Your task to perform on an android device: Open Yahoo.com Image 0: 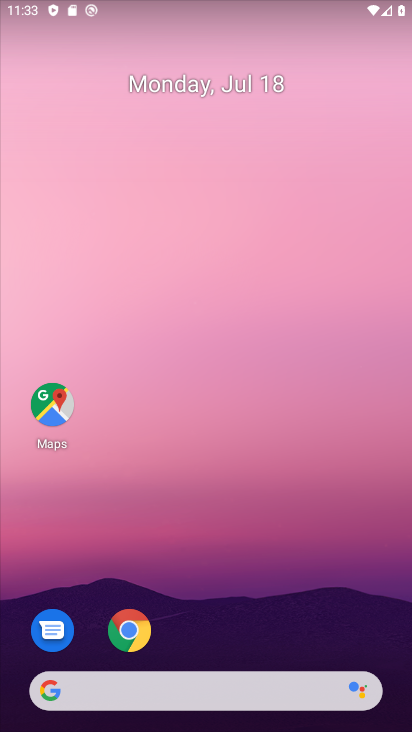
Step 0: click (131, 643)
Your task to perform on an android device: Open Yahoo.com Image 1: 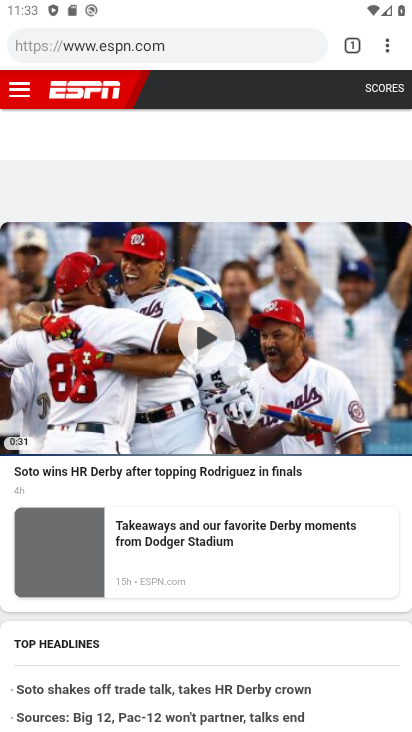
Step 1: click (206, 47)
Your task to perform on an android device: Open Yahoo.com Image 2: 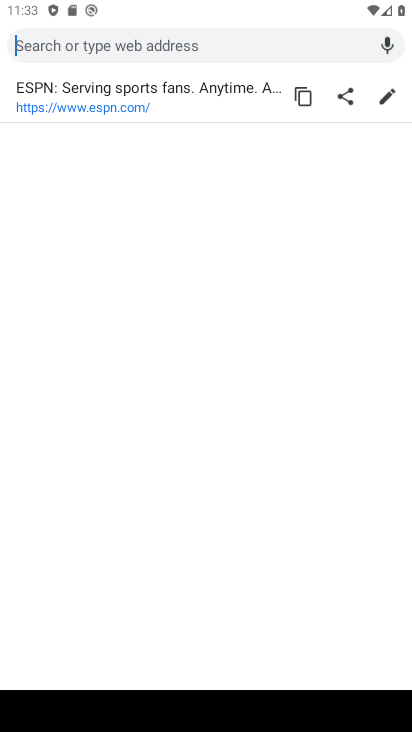
Step 2: type "yahoo.com"
Your task to perform on an android device: Open Yahoo.com Image 3: 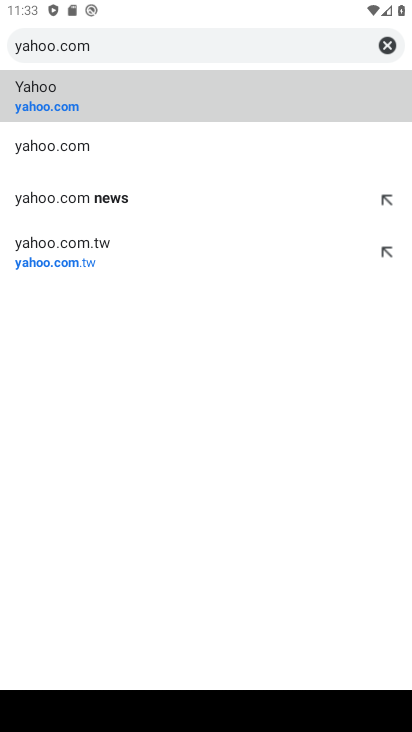
Step 3: click (36, 104)
Your task to perform on an android device: Open Yahoo.com Image 4: 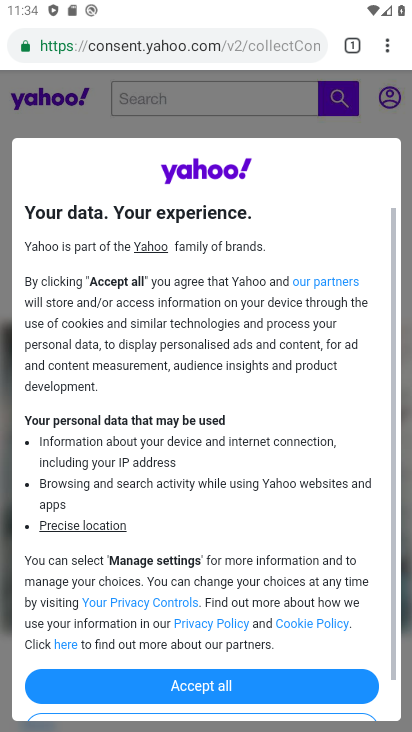
Step 4: task complete